Your task to perform on an android device: Show me some nice wallpapers for my phone Image 0: 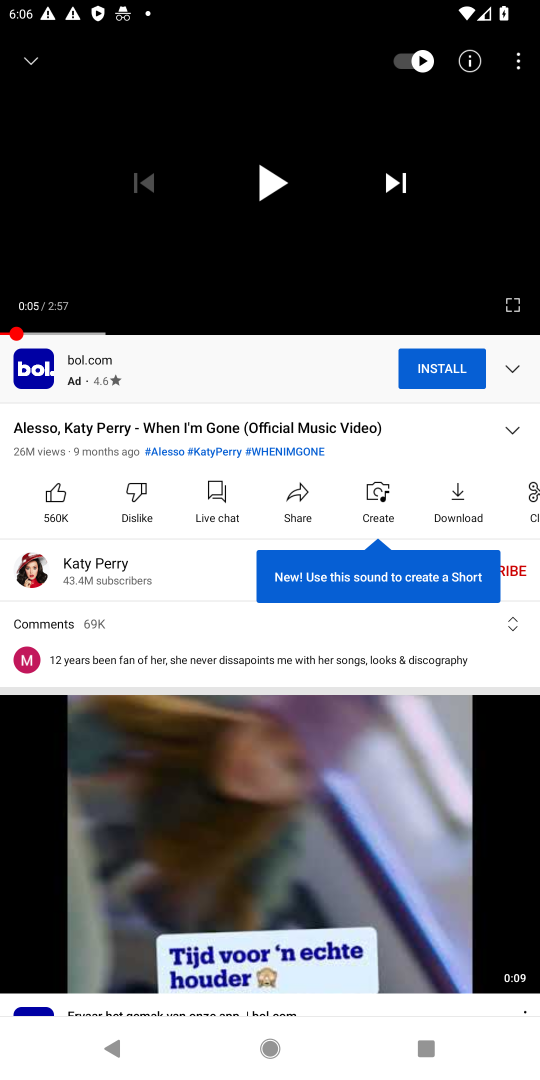
Step 0: press home button
Your task to perform on an android device: Show me some nice wallpapers for my phone Image 1: 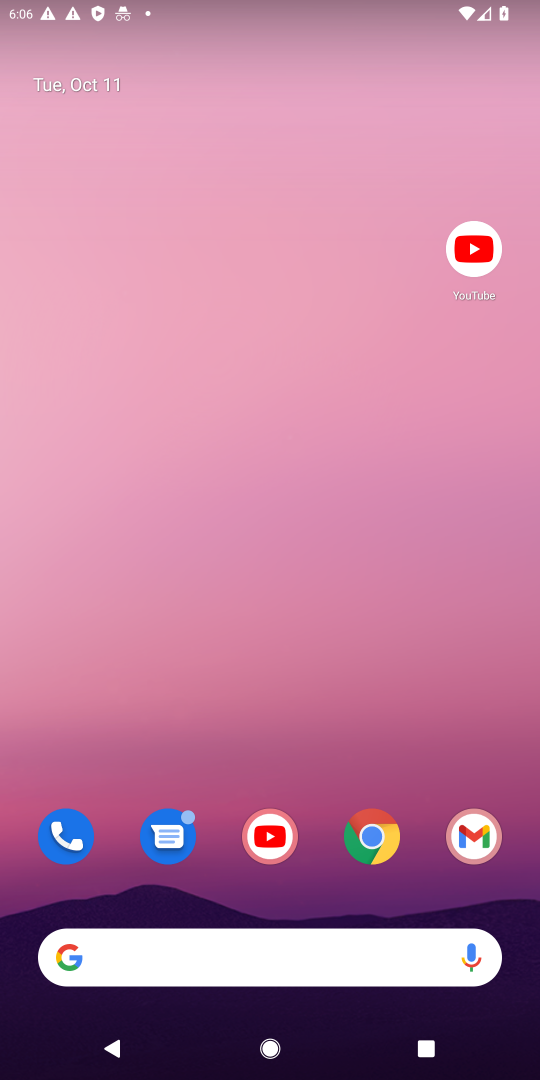
Step 1: click (366, 840)
Your task to perform on an android device: Show me some nice wallpapers for my phone Image 2: 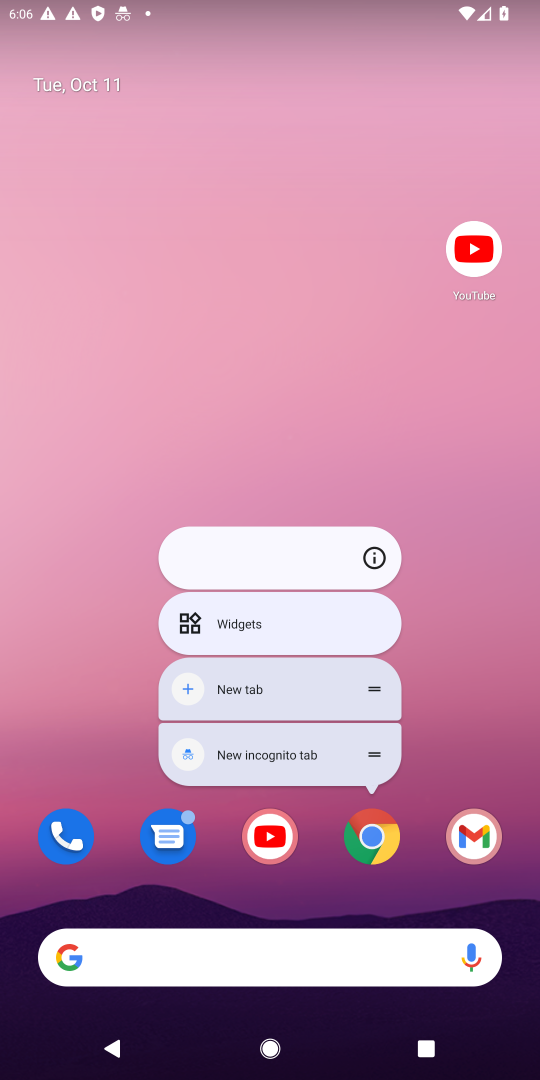
Step 2: click (378, 832)
Your task to perform on an android device: Show me some nice wallpapers for my phone Image 3: 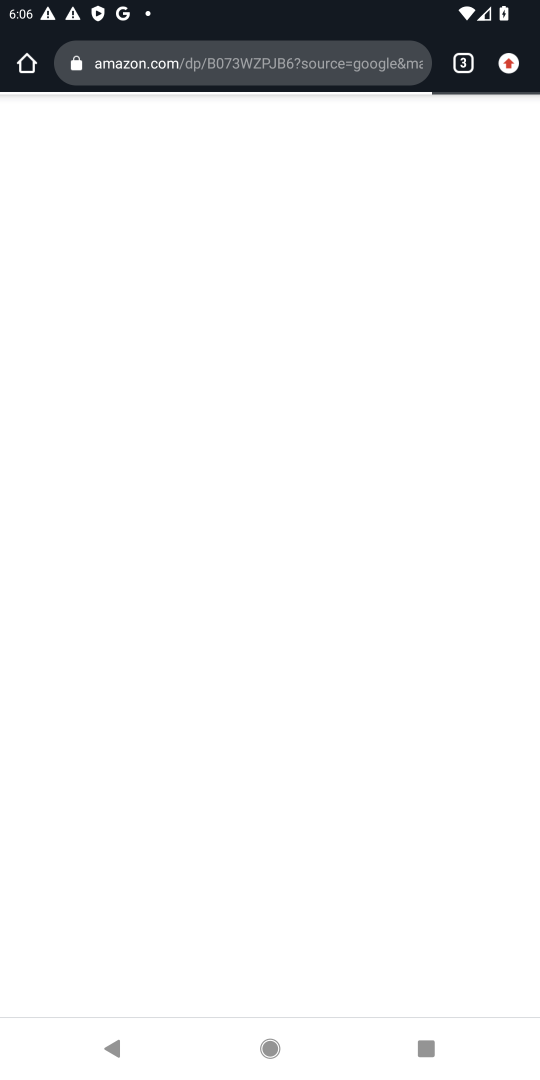
Step 3: click (245, 67)
Your task to perform on an android device: Show me some nice wallpapers for my phone Image 4: 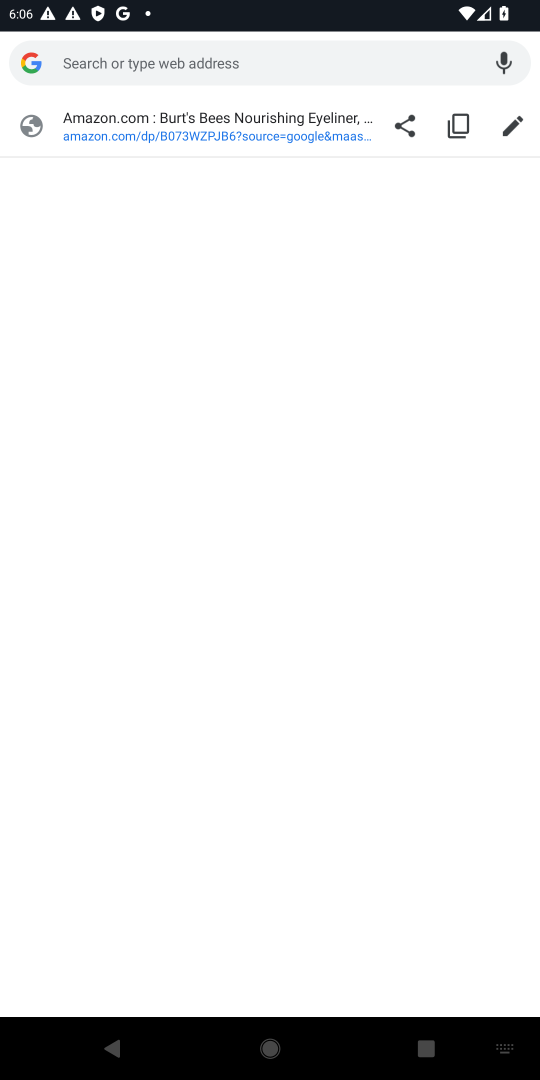
Step 4: type " nice wallpapers for my phone"
Your task to perform on an android device: Show me some nice wallpapers for my phone Image 5: 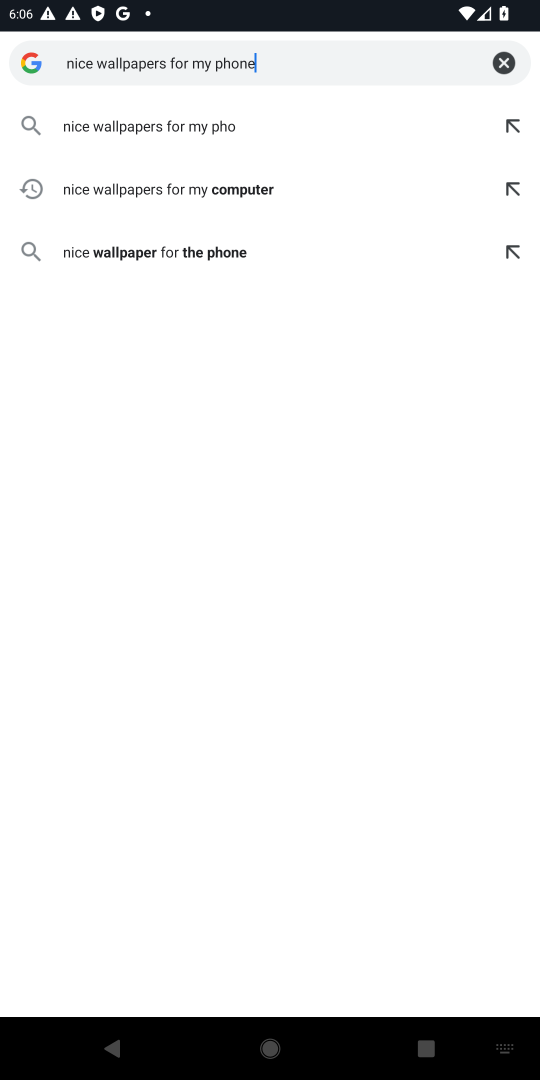
Step 5: press enter
Your task to perform on an android device: Show me some nice wallpapers for my phone Image 6: 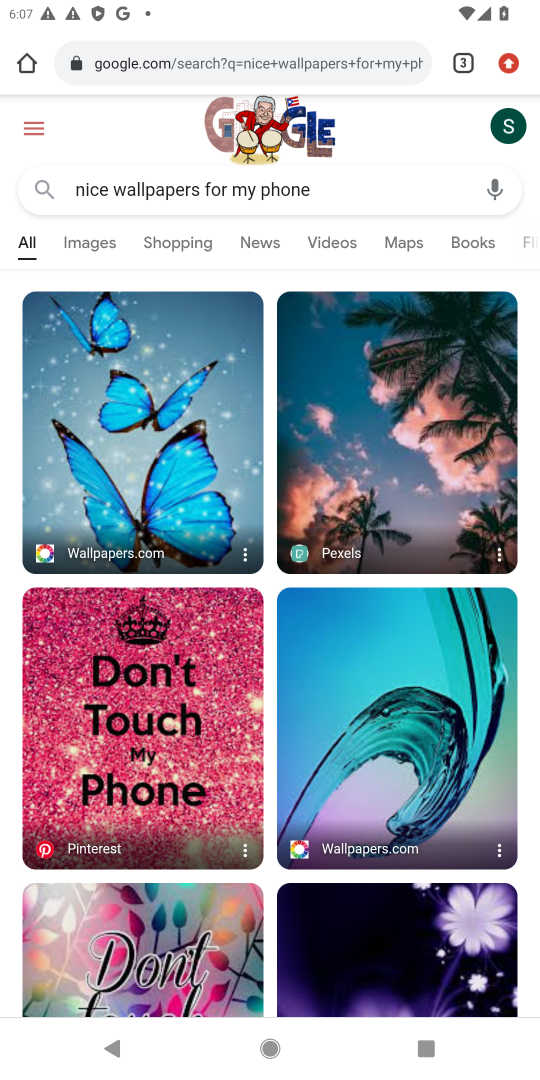
Step 6: task complete